Your task to perform on an android device: Search for Italian restaurants on Maps Image 0: 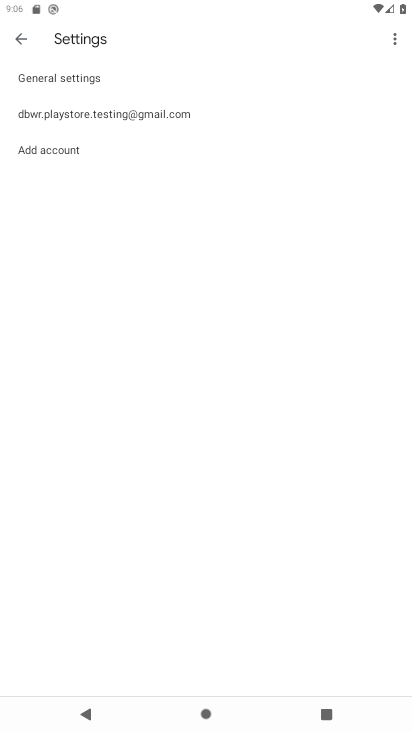
Step 0: press home button
Your task to perform on an android device: Search for Italian restaurants on Maps Image 1: 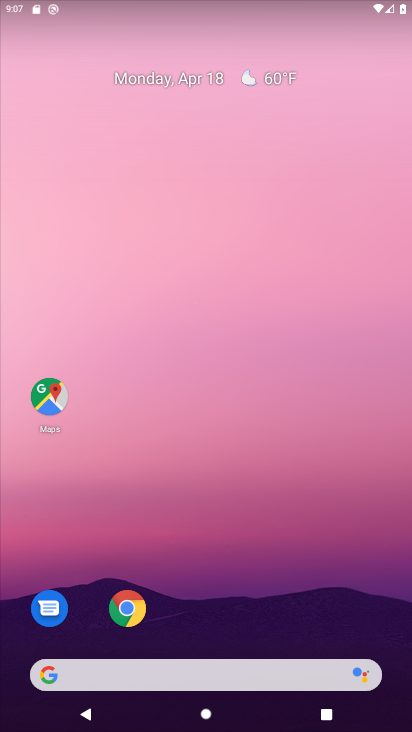
Step 1: click (47, 400)
Your task to perform on an android device: Search for Italian restaurants on Maps Image 2: 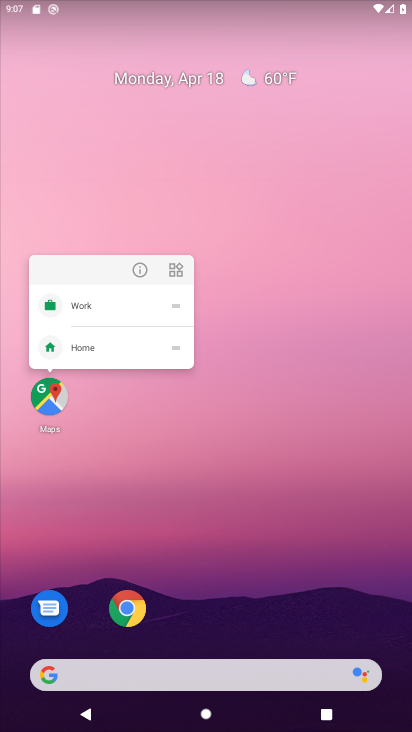
Step 2: click (44, 402)
Your task to perform on an android device: Search for Italian restaurants on Maps Image 3: 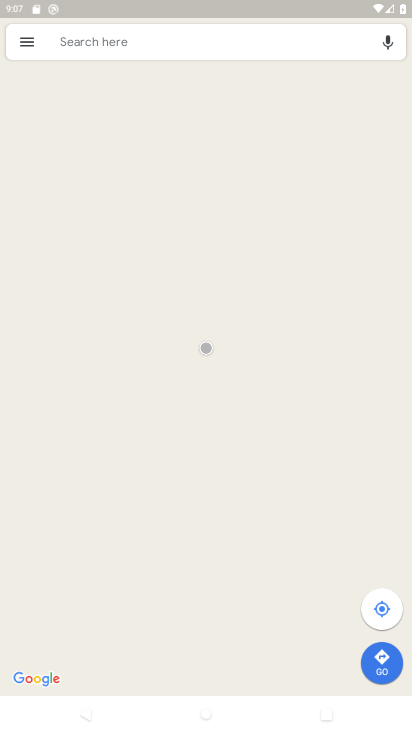
Step 3: click (188, 34)
Your task to perform on an android device: Search for Italian restaurants on Maps Image 4: 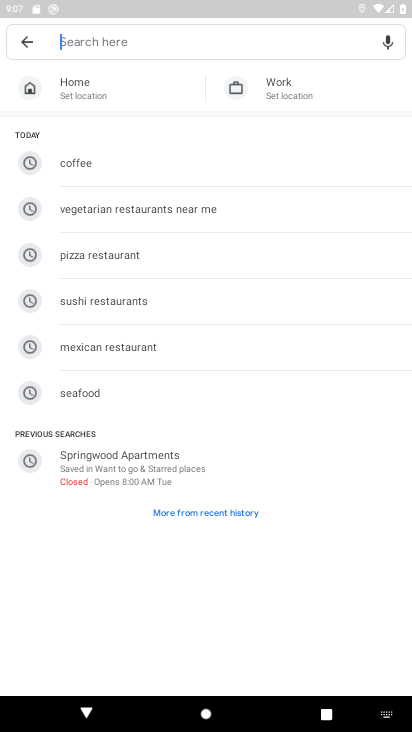
Step 4: type "italian restaurants"
Your task to perform on an android device: Search for Italian restaurants on Maps Image 5: 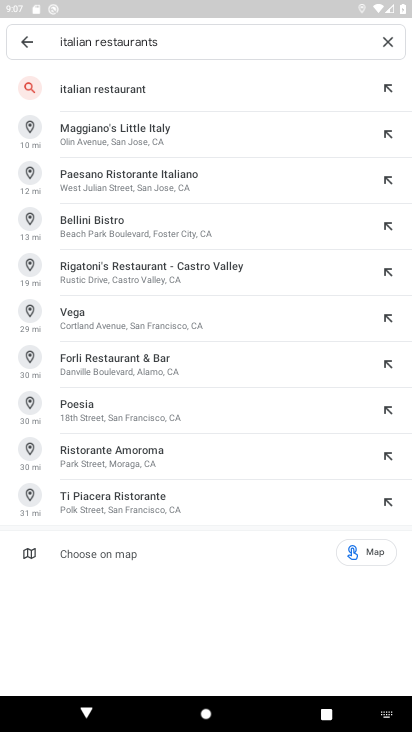
Step 5: click (139, 90)
Your task to perform on an android device: Search for Italian restaurants on Maps Image 6: 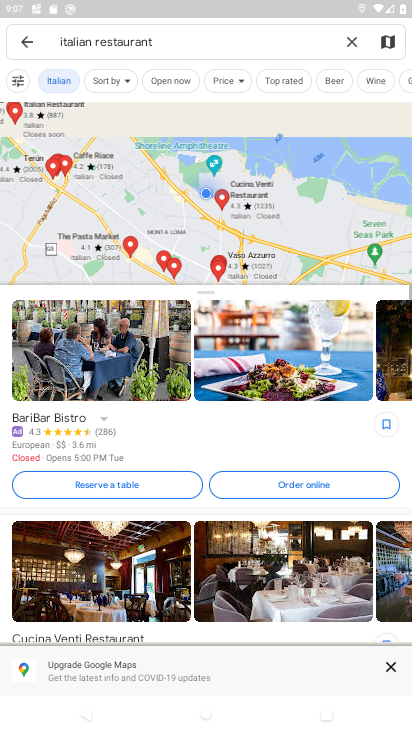
Step 6: task complete